Your task to perform on an android device: open chrome privacy settings Image 0: 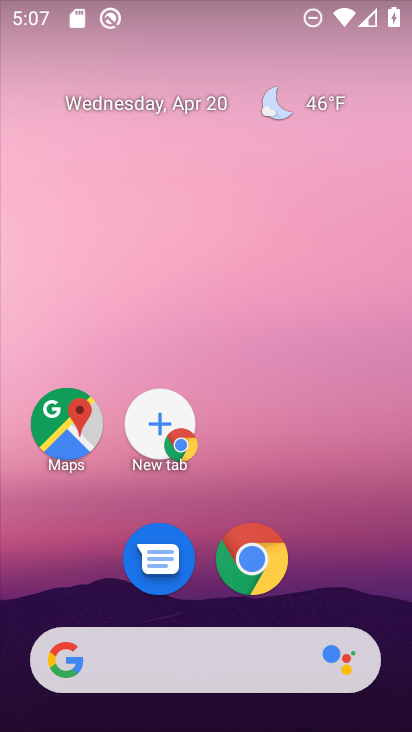
Step 0: click (270, 567)
Your task to perform on an android device: open chrome privacy settings Image 1: 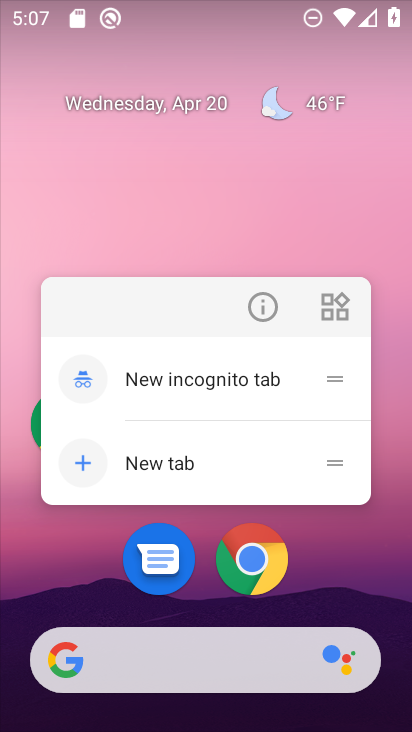
Step 1: click (270, 567)
Your task to perform on an android device: open chrome privacy settings Image 2: 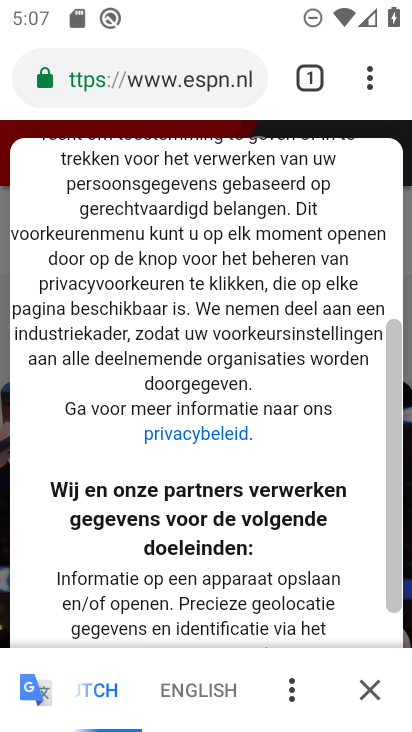
Step 2: click (367, 92)
Your task to perform on an android device: open chrome privacy settings Image 3: 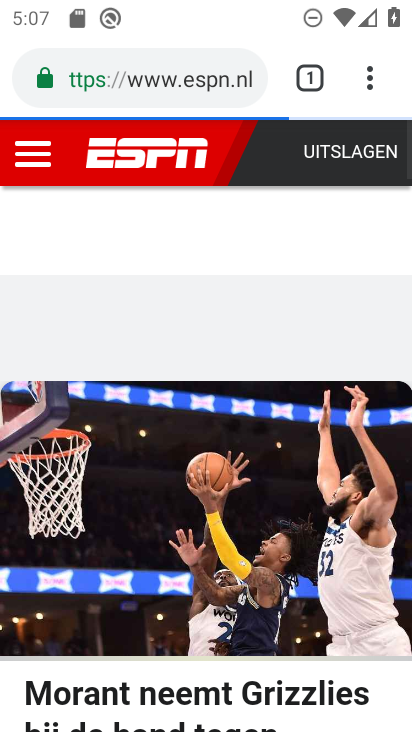
Step 3: click (383, 93)
Your task to perform on an android device: open chrome privacy settings Image 4: 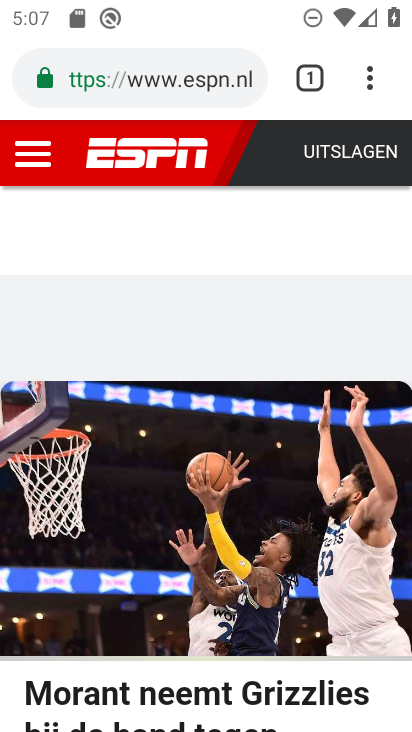
Step 4: click (366, 84)
Your task to perform on an android device: open chrome privacy settings Image 5: 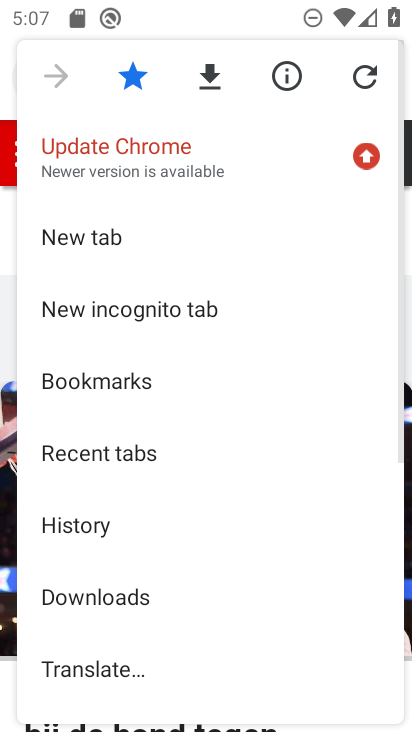
Step 5: drag from (238, 563) to (285, 294)
Your task to perform on an android device: open chrome privacy settings Image 6: 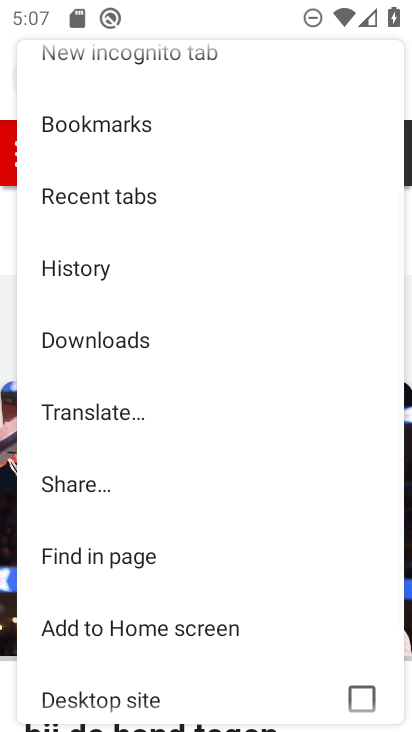
Step 6: drag from (208, 622) to (260, 265)
Your task to perform on an android device: open chrome privacy settings Image 7: 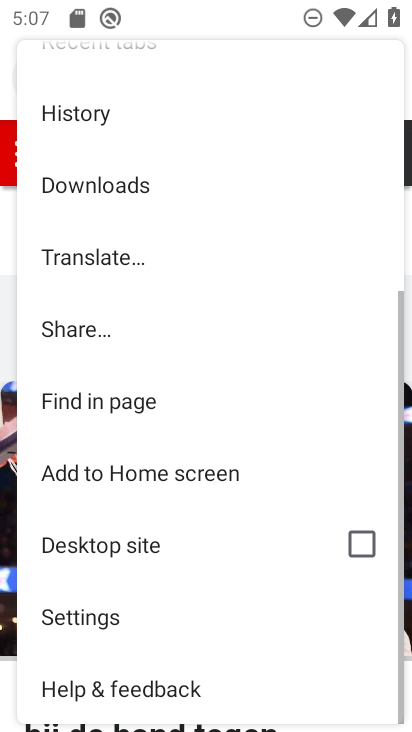
Step 7: click (158, 611)
Your task to perform on an android device: open chrome privacy settings Image 8: 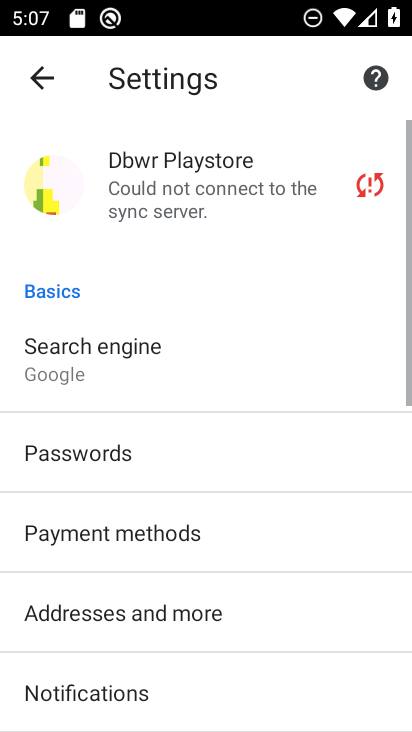
Step 8: drag from (140, 605) to (169, 279)
Your task to perform on an android device: open chrome privacy settings Image 9: 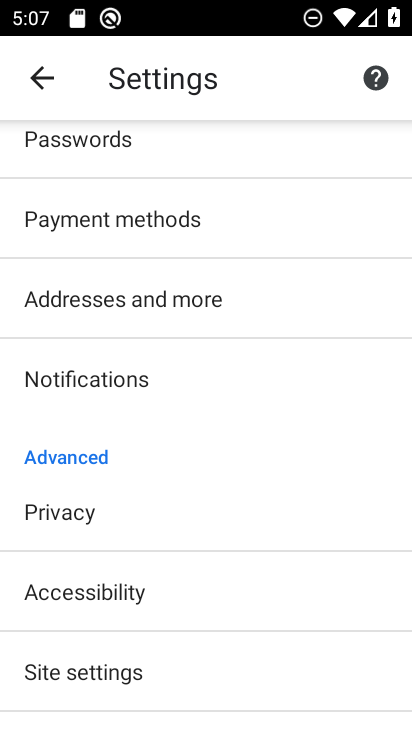
Step 9: drag from (188, 513) to (228, 216)
Your task to perform on an android device: open chrome privacy settings Image 10: 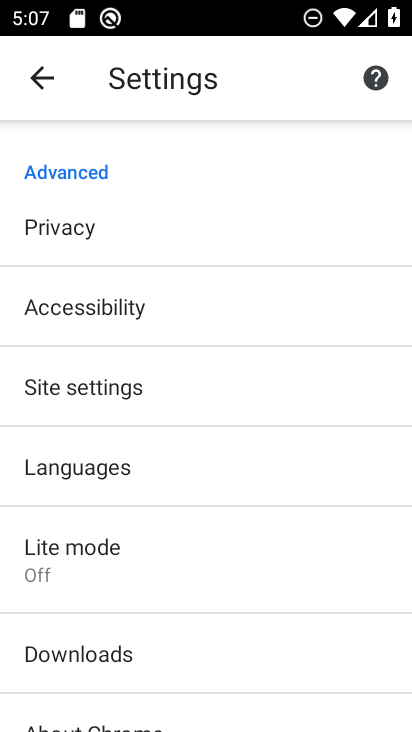
Step 10: drag from (250, 319) to (222, 624)
Your task to perform on an android device: open chrome privacy settings Image 11: 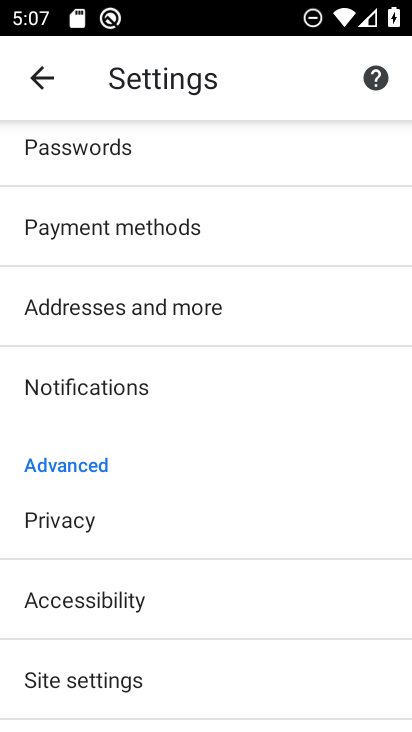
Step 11: drag from (203, 231) to (203, 385)
Your task to perform on an android device: open chrome privacy settings Image 12: 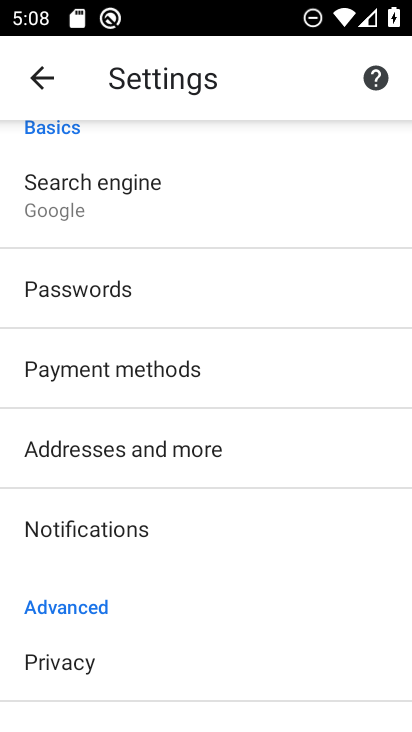
Step 12: drag from (225, 250) to (201, 376)
Your task to perform on an android device: open chrome privacy settings Image 13: 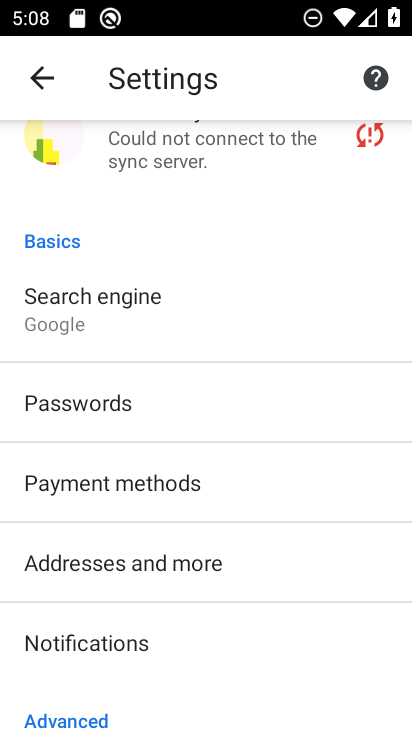
Step 13: drag from (161, 611) to (264, 184)
Your task to perform on an android device: open chrome privacy settings Image 14: 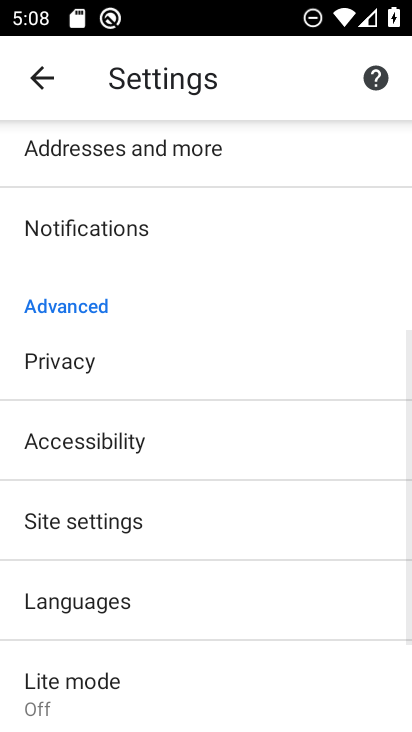
Step 14: click (179, 600)
Your task to perform on an android device: open chrome privacy settings Image 15: 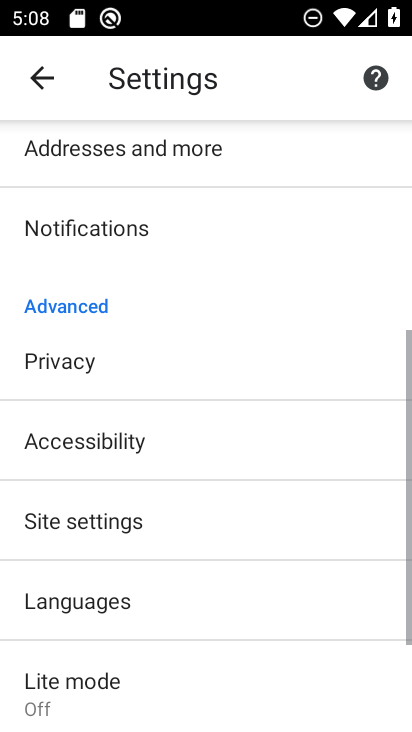
Step 15: click (180, 359)
Your task to perform on an android device: open chrome privacy settings Image 16: 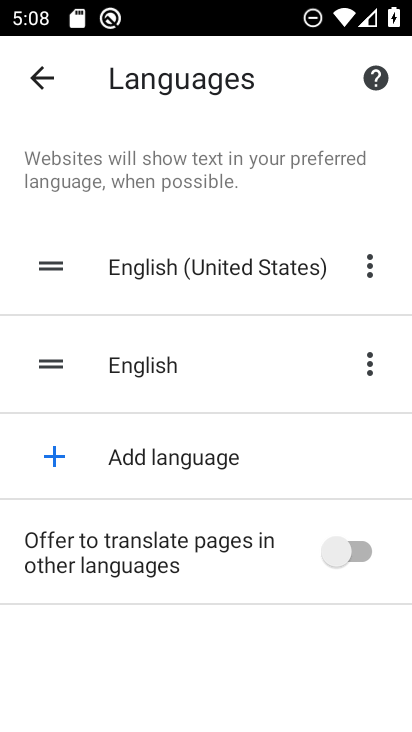
Step 16: click (56, 90)
Your task to perform on an android device: open chrome privacy settings Image 17: 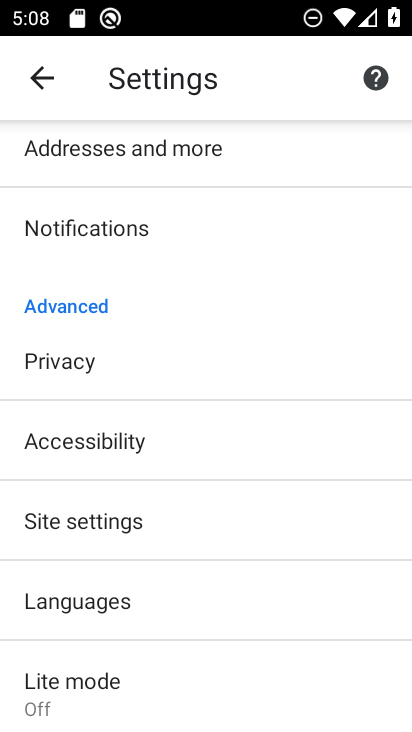
Step 17: click (230, 384)
Your task to perform on an android device: open chrome privacy settings Image 18: 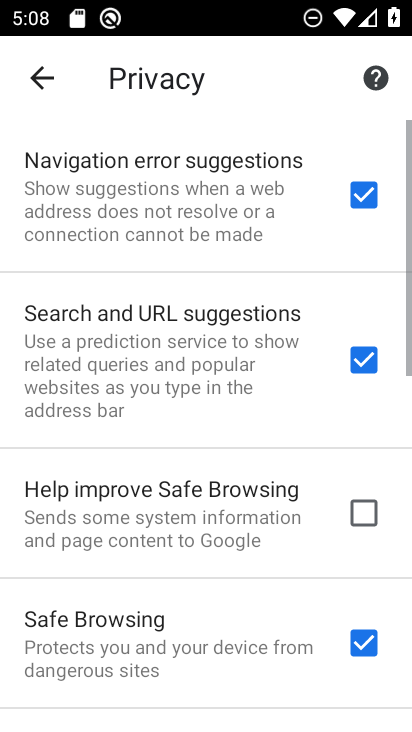
Step 18: task complete